Your task to perform on an android device: turn on sleep mode Image 0: 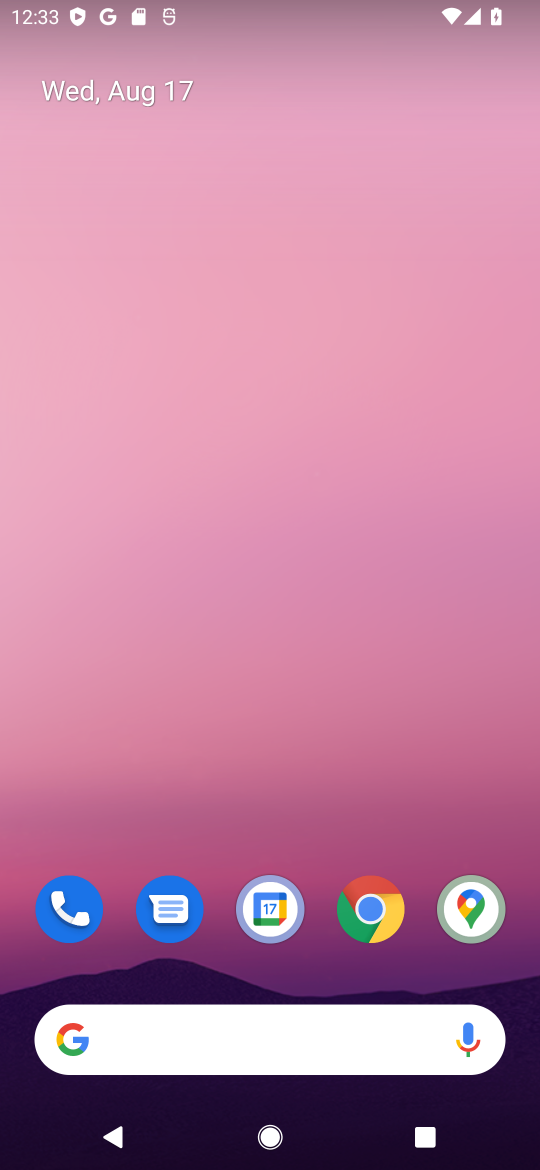
Step 0: drag from (305, 821) to (238, 214)
Your task to perform on an android device: turn on sleep mode Image 1: 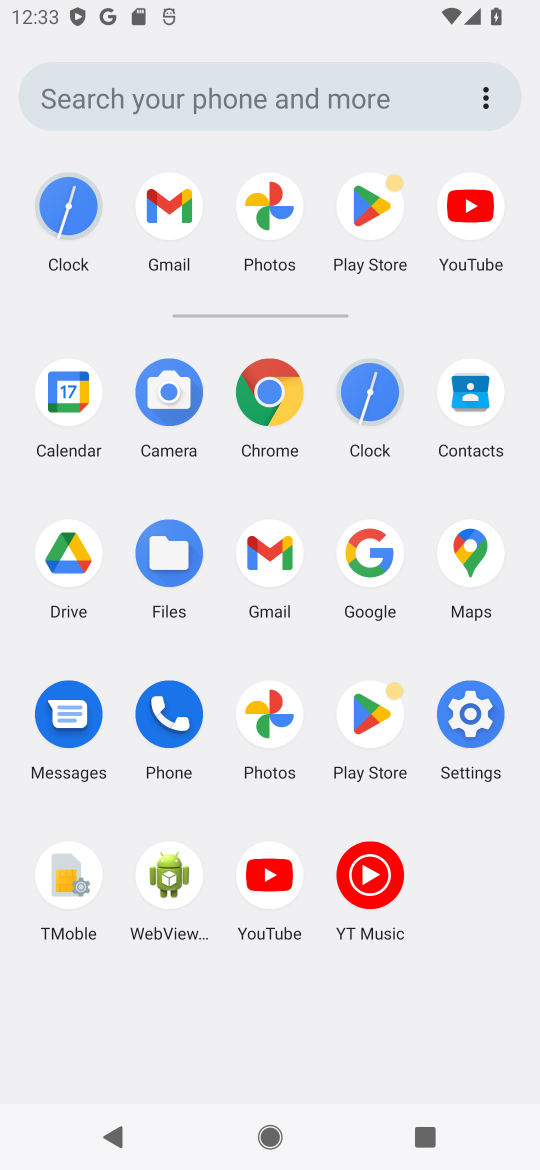
Step 1: click (467, 717)
Your task to perform on an android device: turn on sleep mode Image 2: 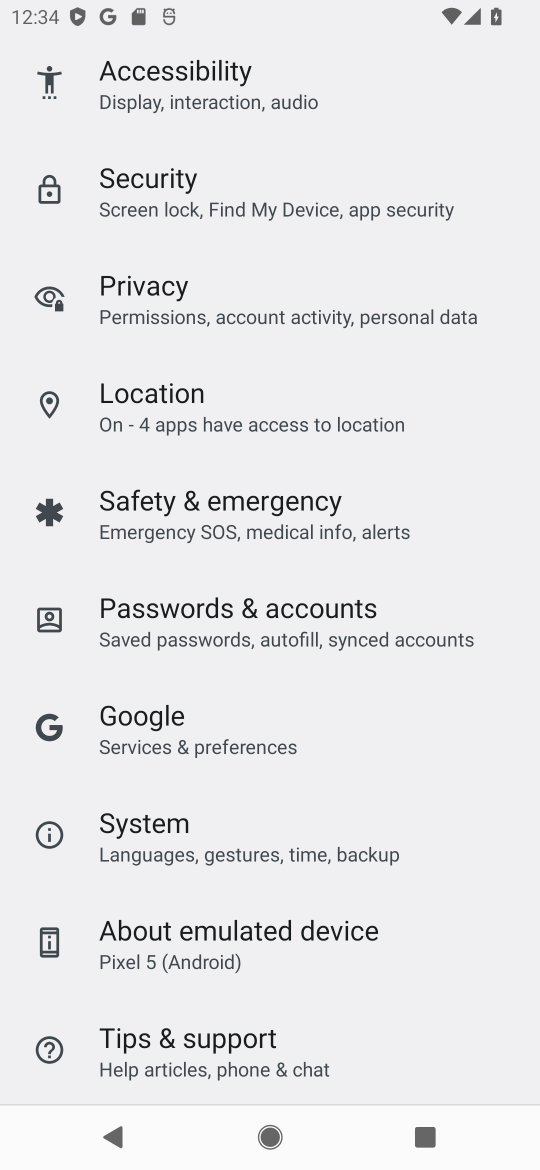
Step 2: drag from (256, 154) to (265, 477)
Your task to perform on an android device: turn on sleep mode Image 3: 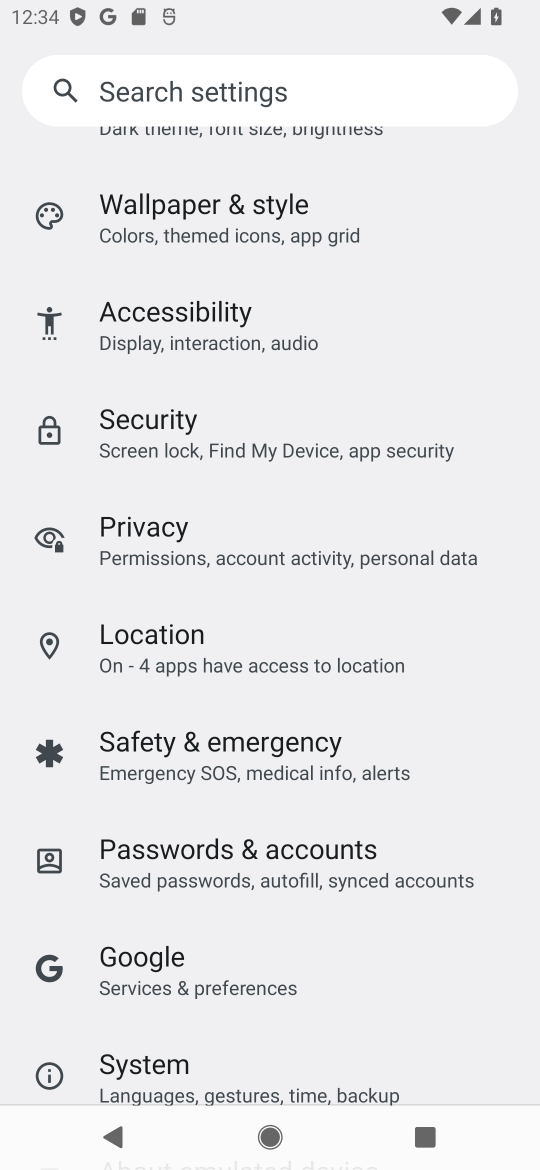
Step 3: drag from (264, 298) to (340, 818)
Your task to perform on an android device: turn on sleep mode Image 4: 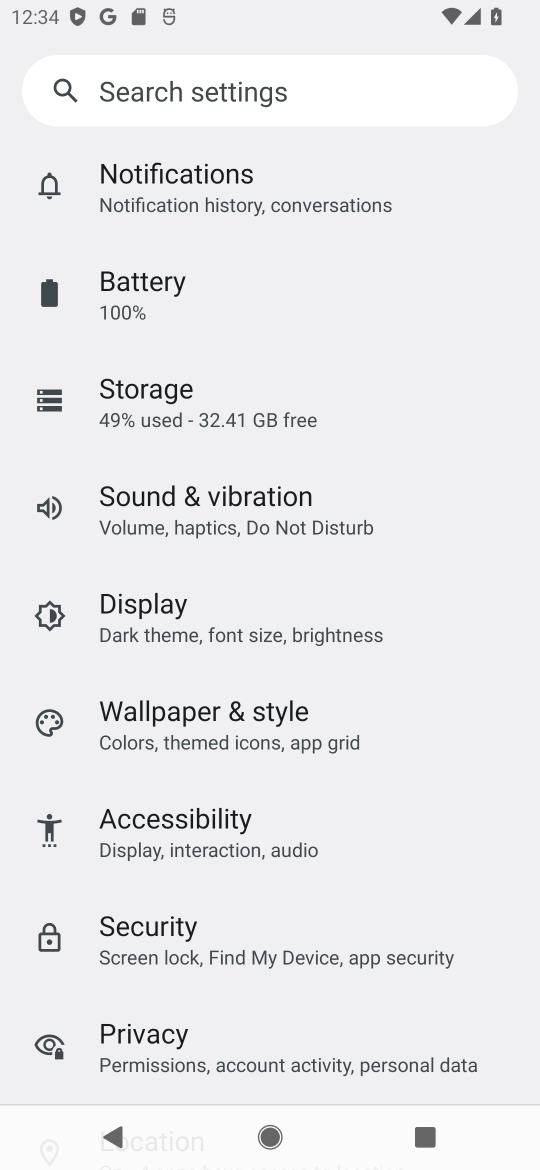
Step 4: drag from (309, 322) to (311, 426)
Your task to perform on an android device: turn on sleep mode Image 5: 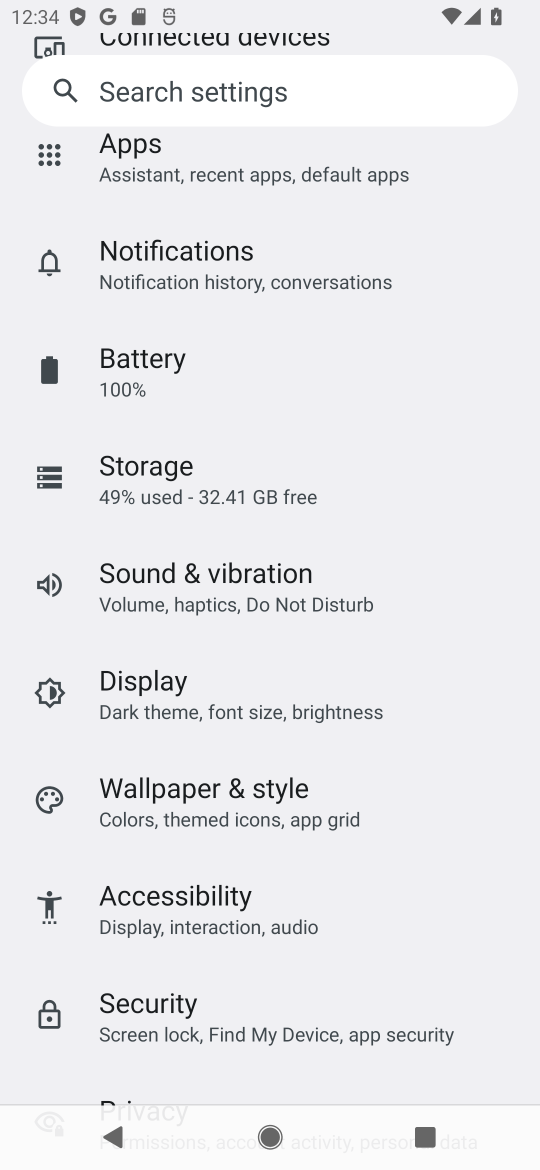
Step 5: click (140, 679)
Your task to perform on an android device: turn on sleep mode Image 6: 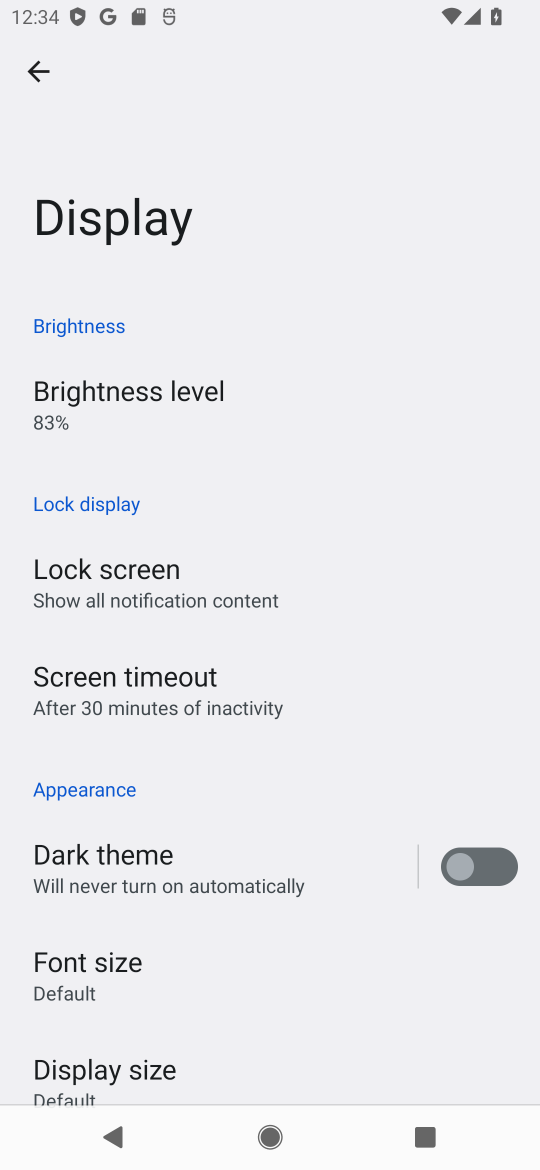
Step 6: task complete